Your task to perform on an android device: open sync settings in chrome Image 0: 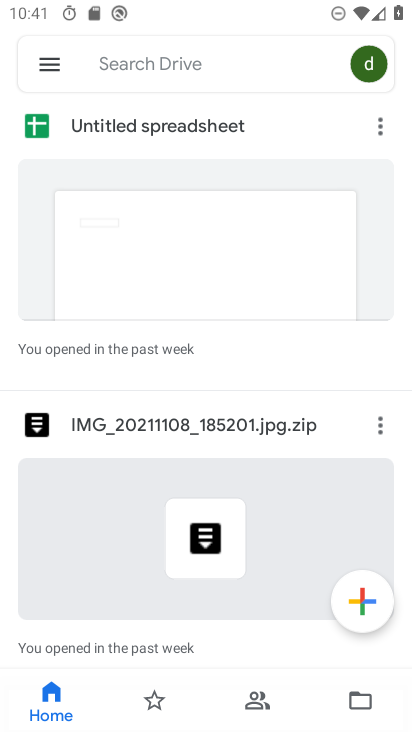
Step 0: press home button
Your task to perform on an android device: open sync settings in chrome Image 1: 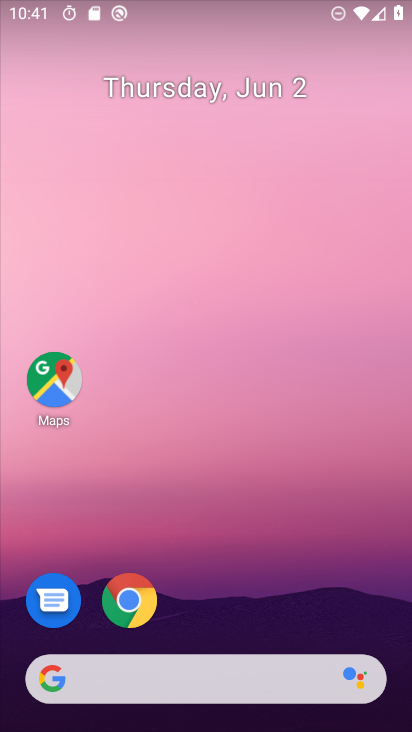
Step 1: drag from (224, 554) to (264, 105)
Your task to perform on an android device: open sync settings in chrome Image 2: 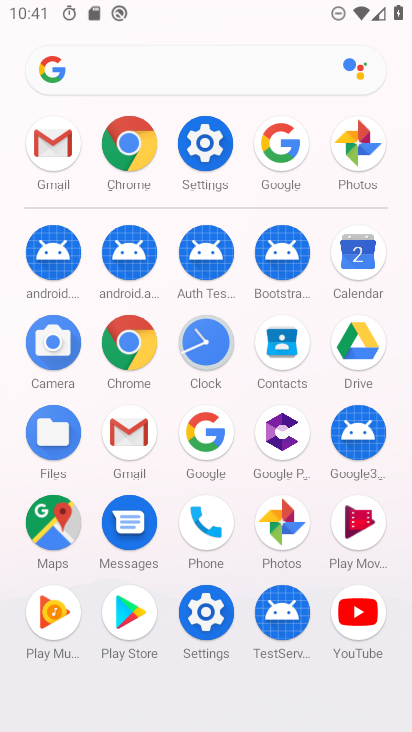
Step 2: click (132, 139)
Your task to perform on an android device: open sync settings in chrome Image 3: 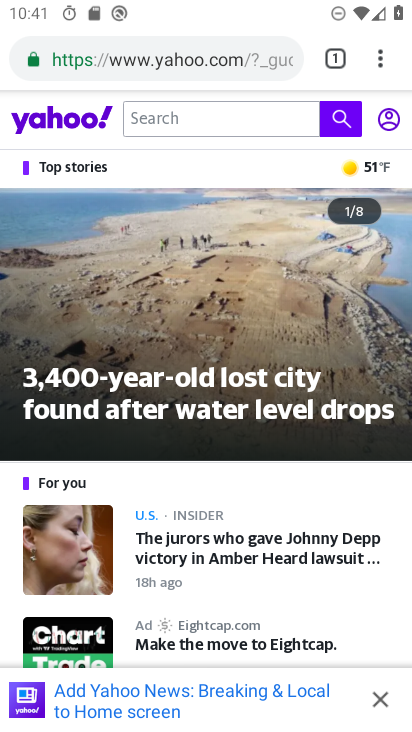
Step 3: click (371, 68)
Your task to perform on an android device: open sync settings in chrome Image 4: 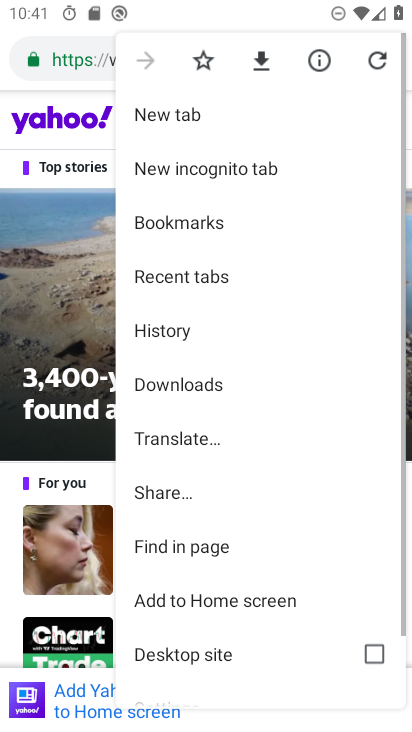
Step 4: drag from (223, 592) to (301, 165)
Your task to perform on an android device: open sync settings in chrome Image 5: 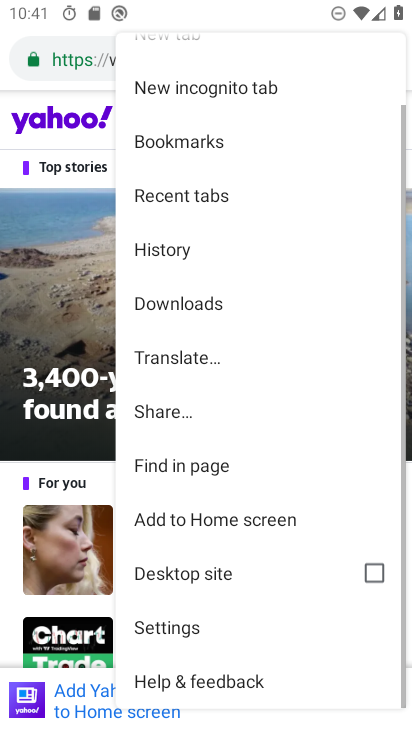
Step 5: click (169, 618)
Your task to perform on an android device: open sync settings in chrome Image 6: 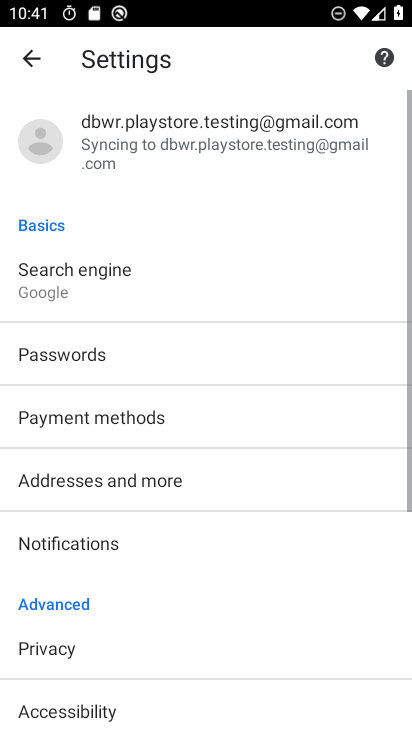
Step 6: drag from (271, 603) to (257, 250)
Your task to perform on an android device: open sync settings in chrome Image 7: 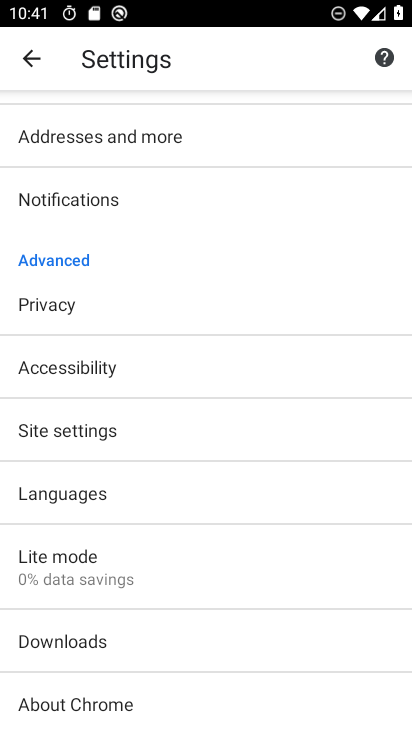
Step 7: click (90, 433)
Your task to perform on an android device: open sync settings in chrome Image 8: 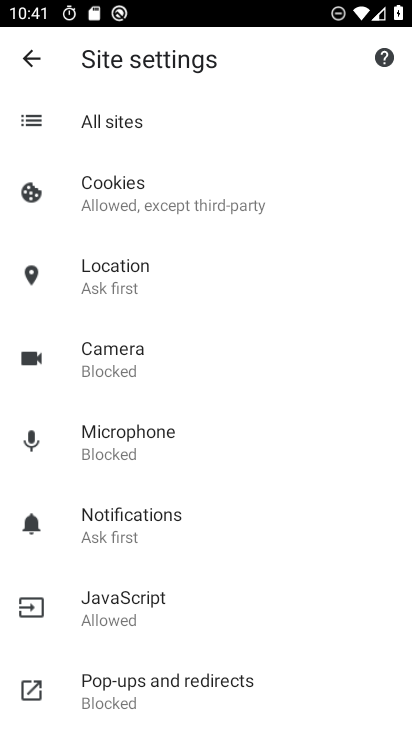
Step 8: drag from (240, 572) to (230, 254)
Your task to perform on an android device: open sync settings in chrome Image 9: 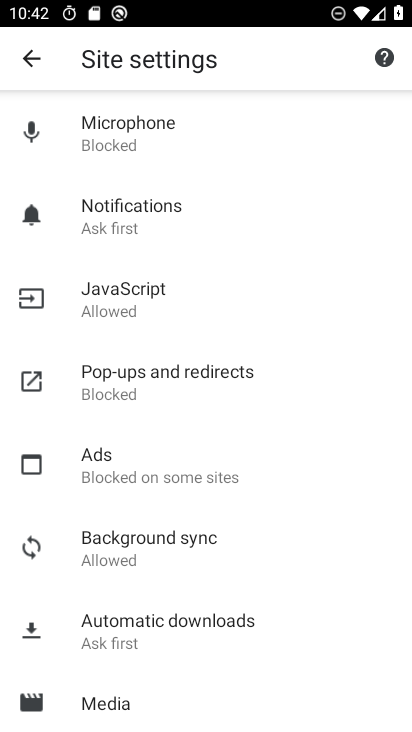
Step 9: click (167, 551)
Your task to perform on an android device: open sync settings in chrome Image 10: 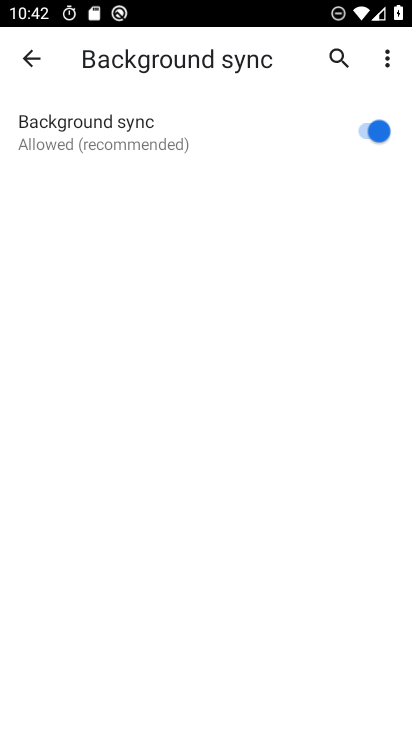
Step 10: task complete